Your task to perform on an android device: clear all cookies in the chrome app Image 0: 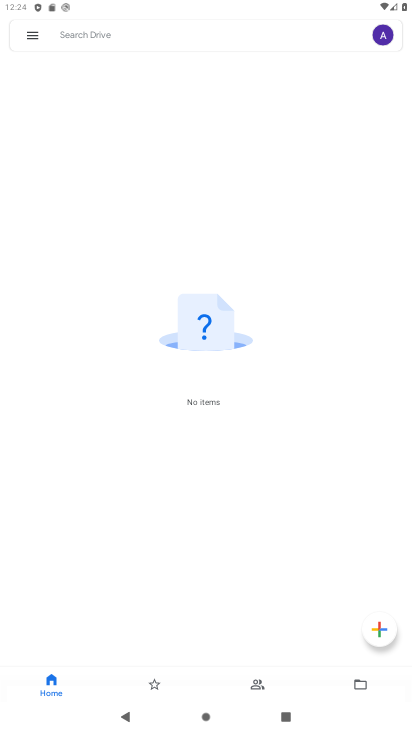
Step 0: press home button
Your task to perform on an android device: clear all cookies in the chrome app Image 1: 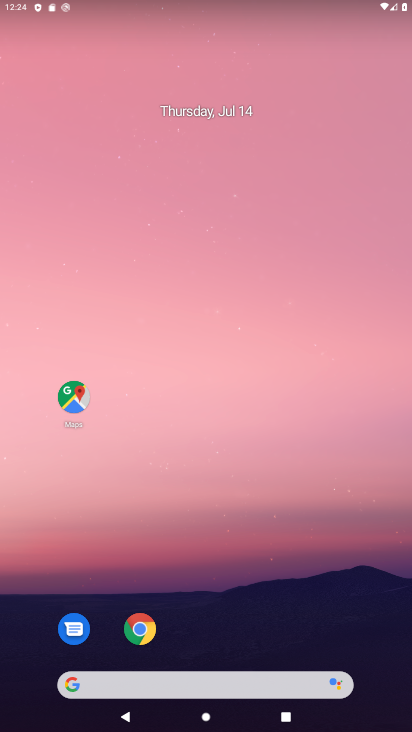
Step 1: drag from (227, 654) to (185, 279)
Your task to perform on an android device: clear all cookies in the chrome app Image 2: 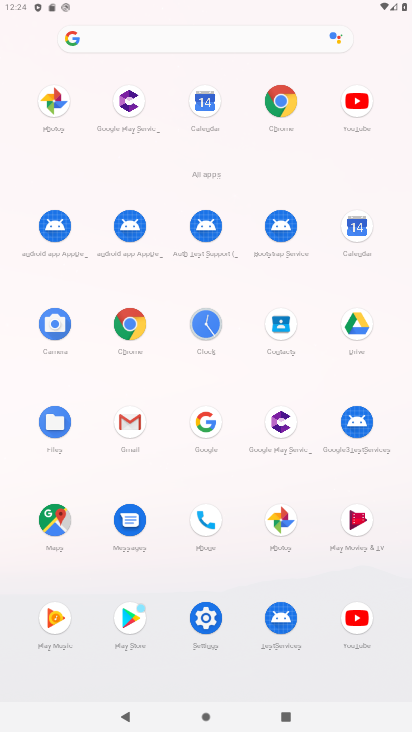
Step 2: click (287, 115)
Your task to perform on an android device: clear all cookies in the chrome app Image 3: 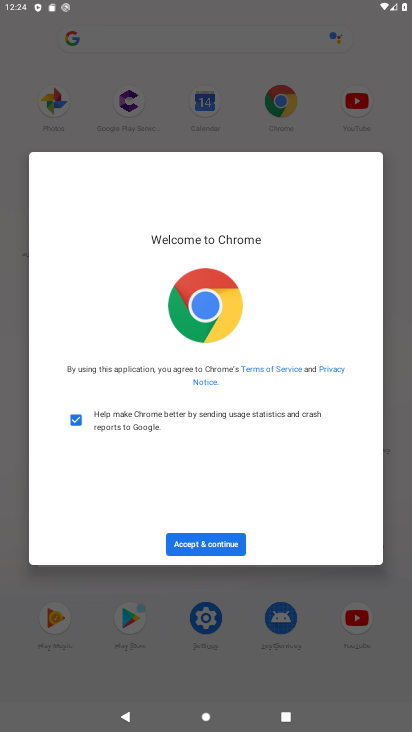
Step 3: click (196, 556)
Your task to perform on an android device: clear all cookies in the chrome app Image 4: 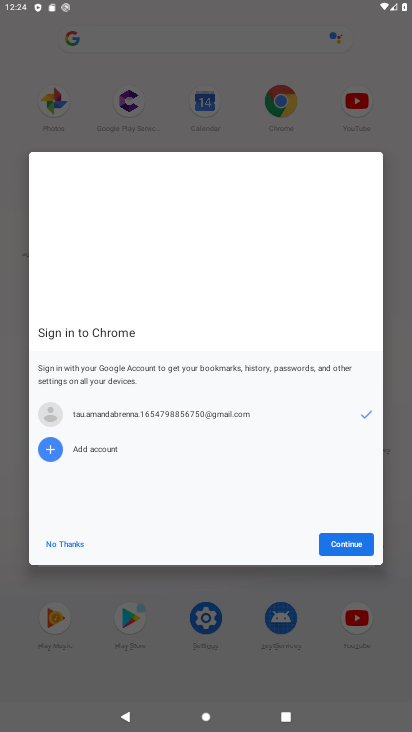
Step 4: click (353, 543)
Your task to perform on an android device: clear all cookies in the chrome app Image 5: 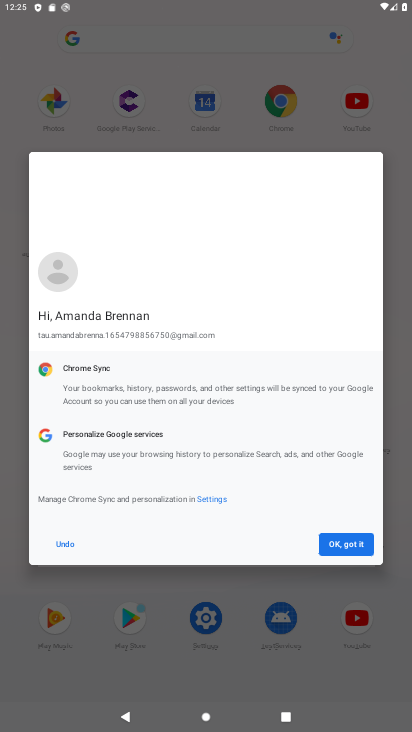
Step 5: click (353, 543)
Your task to perform on an android device: clear all cookies in the chrome app Image 6: 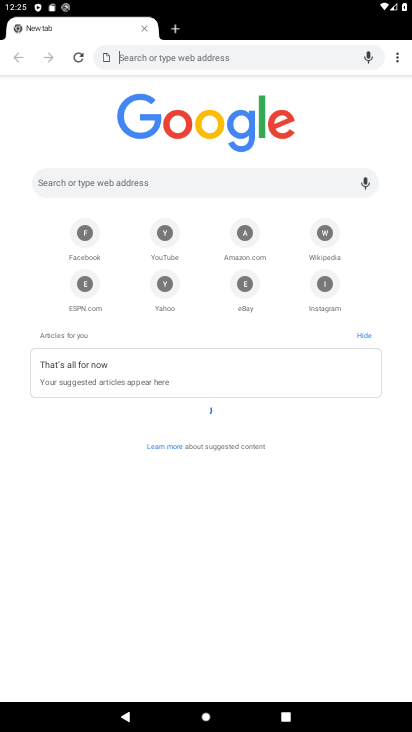
Step 6: click (394, 56)
Your task to perform on an android device: clear all cookies in the chrome app Image 7: 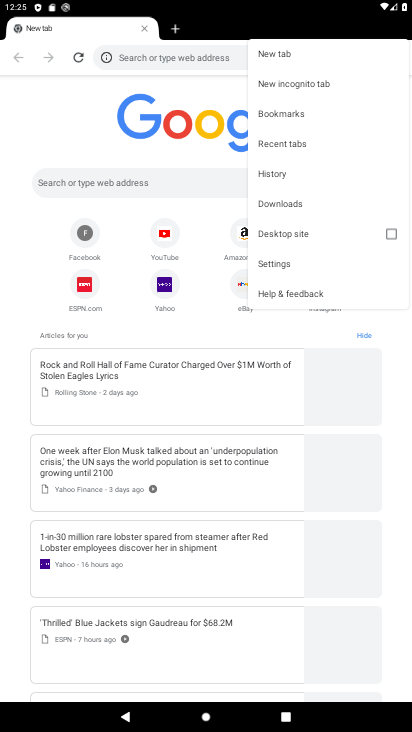
Step 7: click (284, 175)
Your task to perform on an android device: clear all cookies in the chrome app Image 8: 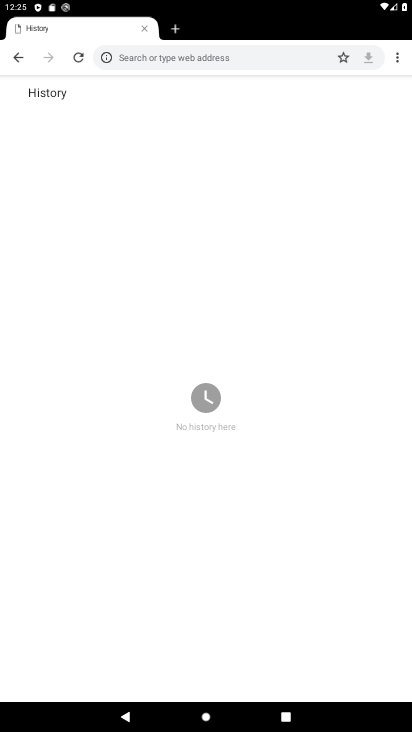
Step 8: task complete